Your task to perform on an android device: change keyboard looks Image 0: 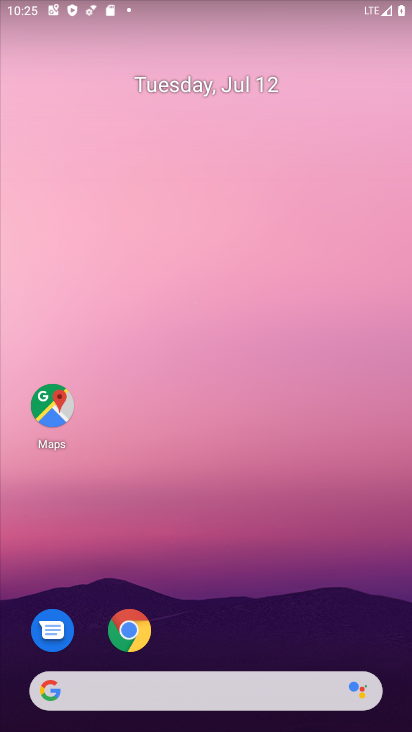
Step 0: drag from (227, 627) to (282, 150)
Your task to perform on an android device: change keyboard looks Image 1: 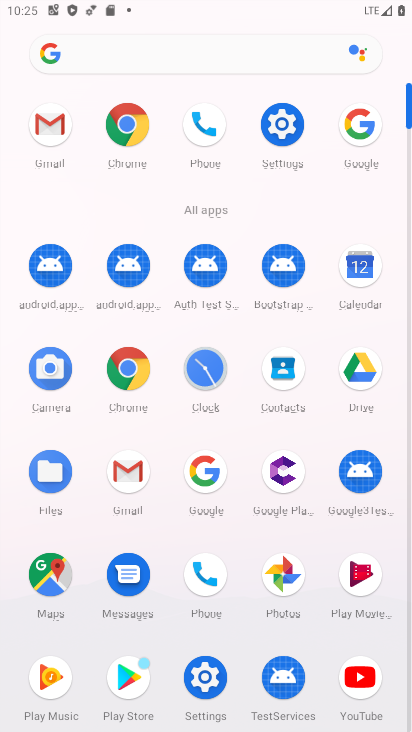
Step 1: click (284, 125)
Your task to perform on an android device: change keyboard looks Image 2: 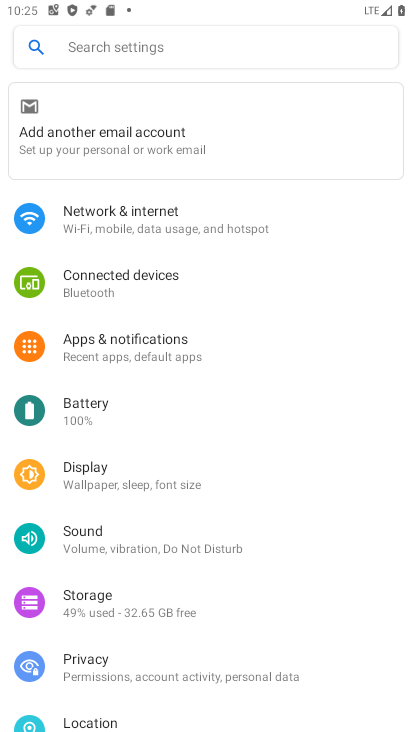
Step 2: drag from (156, 620) to (216, 199)
Your task to perform on an android device: change keyboard looks Image 3: 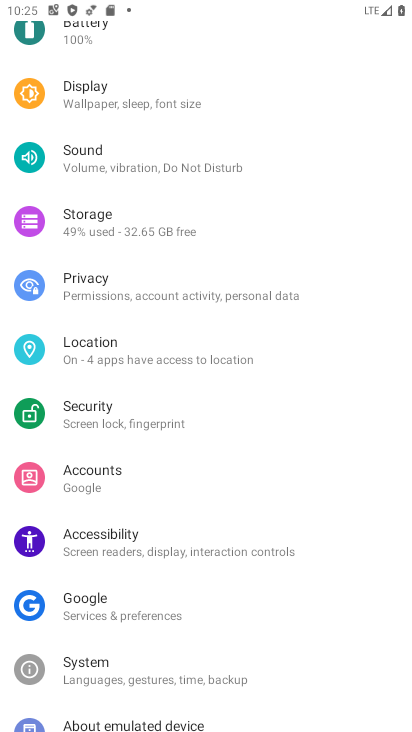
Step 3: click (96, 673)
Your task to perform on an android device: change keyboard looks Image 4: 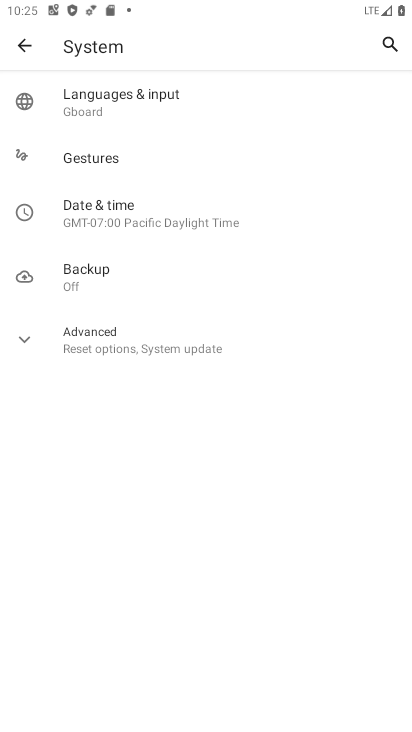
Step 4: click (98, 104)
Your task to perform on an android device: change keyboard looks Image 5: 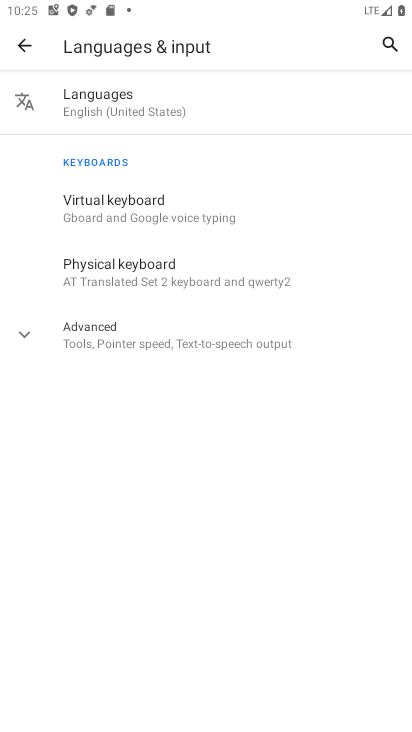
Step 5: click (102, 215)
Your task to perform on an android device: change keyboard looks Image 6: 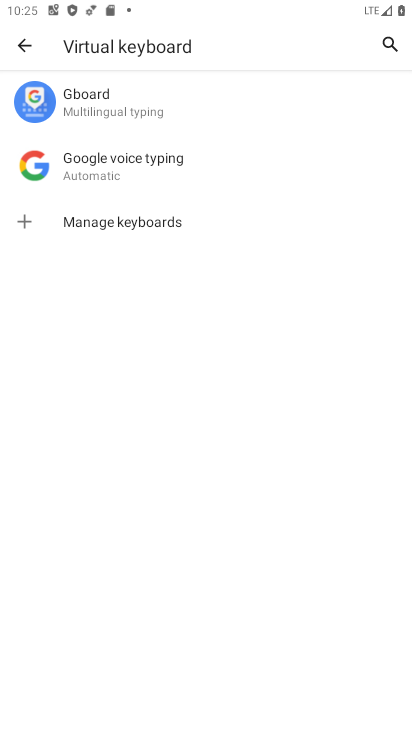
Step 6: click (97, 107)
Your task to perform on an android device: change keyboard looks Image 7: 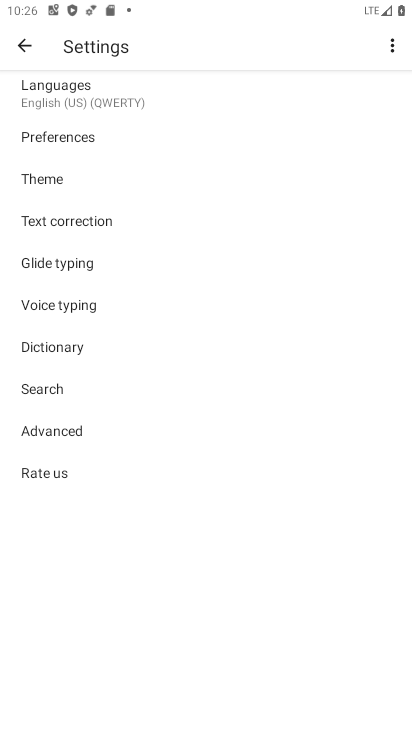
Step 7: click (49, 179)
Your task to perform on an android device: change keyboard looks Image 8: 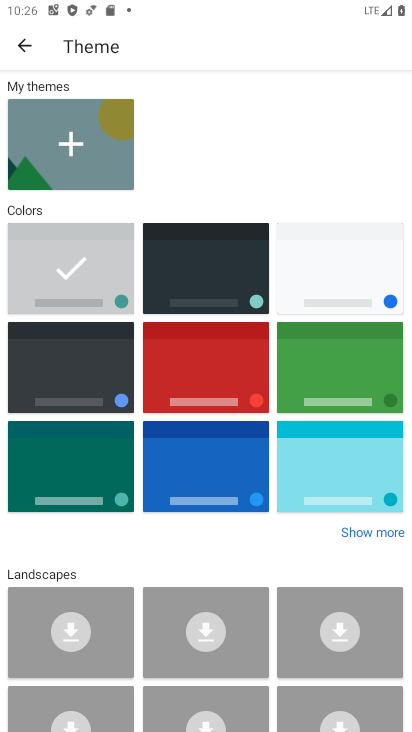
Step 8: click (197, 270)
Your task to perform on an android device: change keyboard looks Image 9: 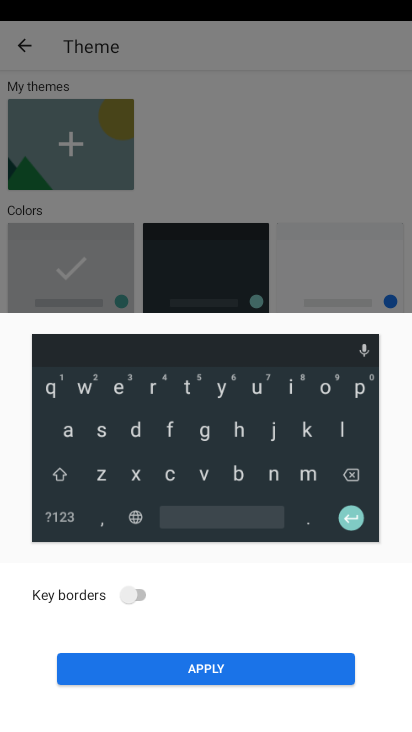
Step 9: click (184, 660)
Your task to perform on an android device: change keyboard looks Image 10: 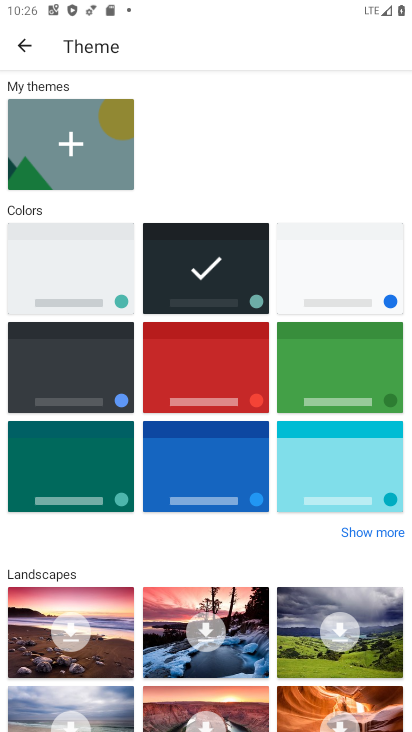
Step 10: task complete